Your task to perform on an android device: Go to accessibility settings Image 0: 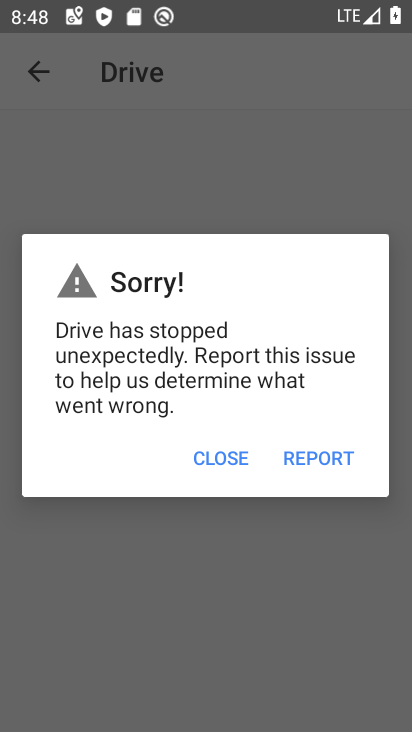
Step 0: press home button
Your task to perform on an android device: Go to accessibility settings Image 1: 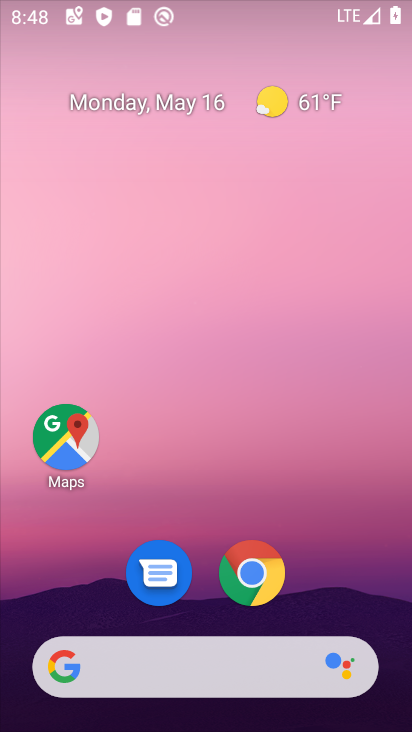
Step 1: drag from (214, 724) to (219, 133)
Your task to perform on an android device: Go to accessibility settings Image 2: 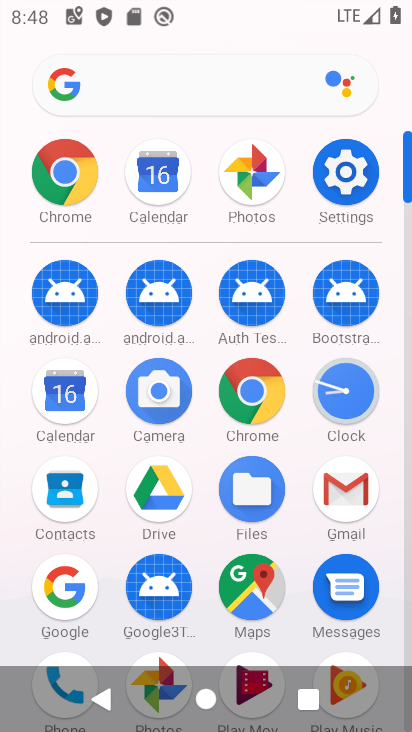
Step 2: click (339, 174)
Your task to perform on an android device: Go to accessibility settings Image 3: 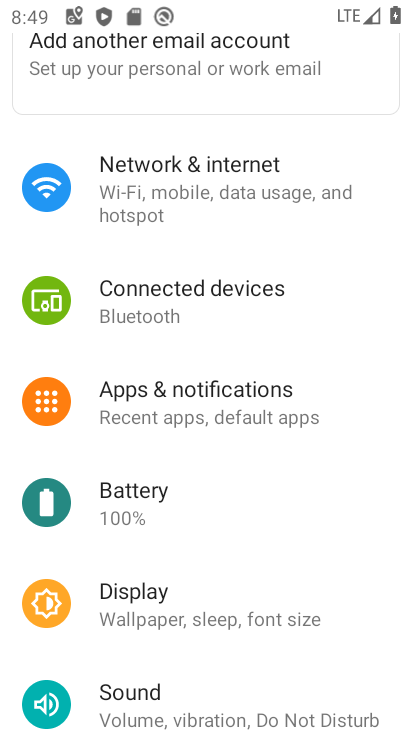
Step 3: drag from (191, 646) to (181, 181)
Your task to perform on an android device: Go to accessibility settings Image 4: 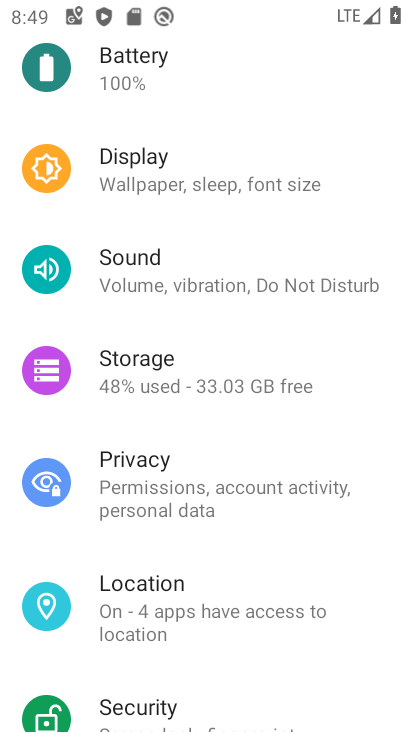
Step 4: drag from (204, 602) to (191, 207)
Your task to perform on an android device: Go to accessibility settings Image 5: 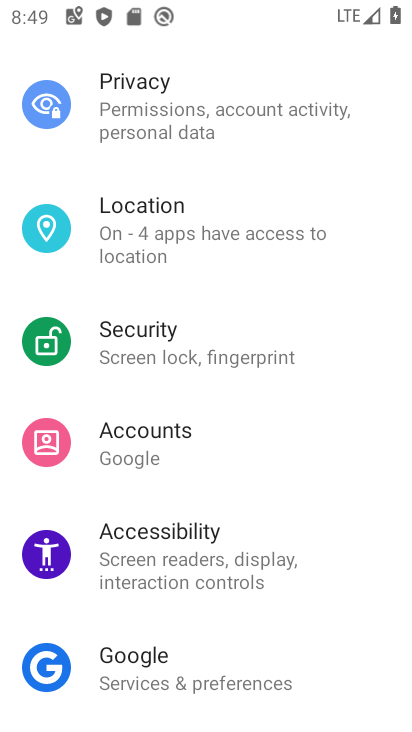
Step 5: click (172, 546)
Your task to perform on an android device: Go to accessibility settings Image 6: 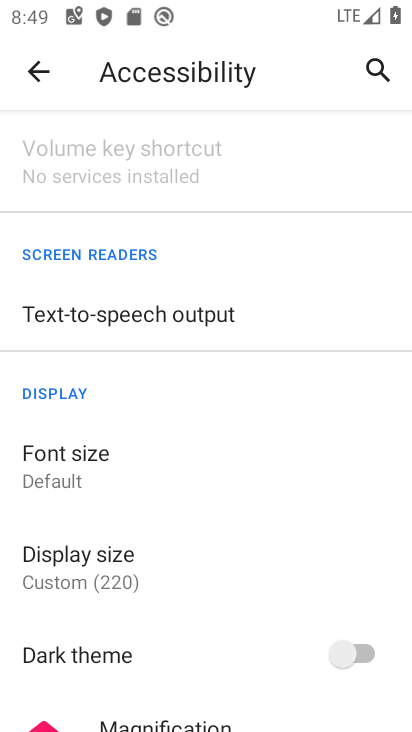
Step 6: task complete